Your task to perform on an android device: Go to network settings Image 0: 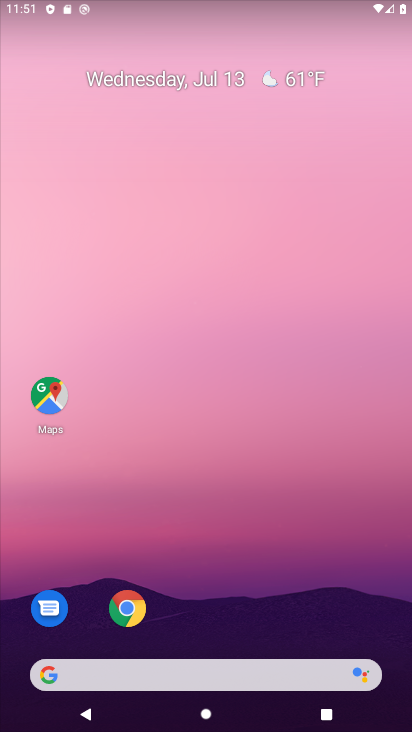
Step 0: click (160, 218)
Your task to perform on an android device: Go to network settings Image 1: 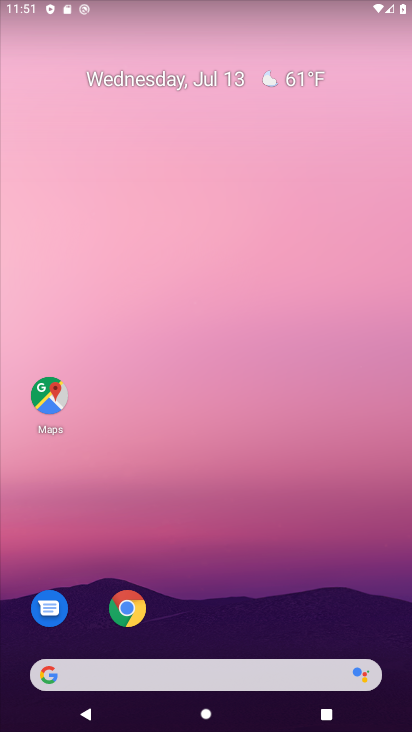
Step 1: click (190, 337)
Your task to perform on an android device: Go to network settings Image 2: 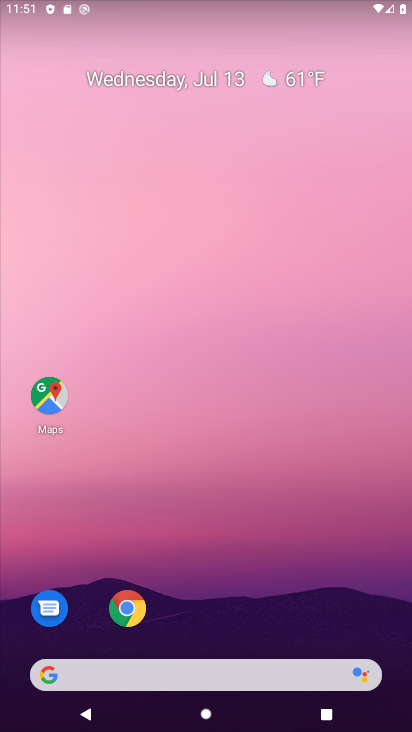
Step 2: click (239, 200)
Your task to perform on an android device: Go to network settings Image 3: 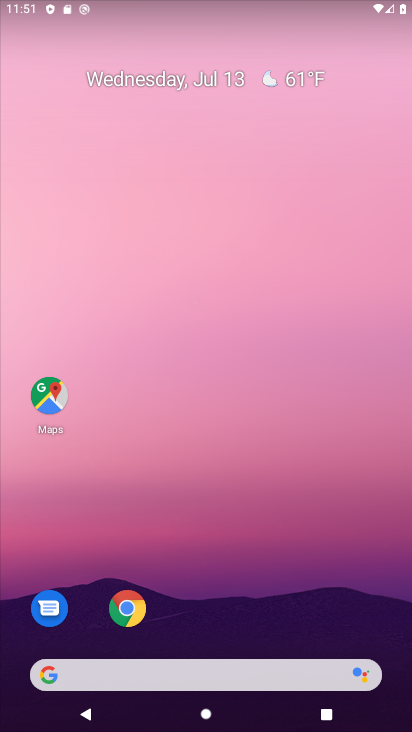
Step 3: drag from (216, 545) to (219, 18)
Your task to perform on an android device: Go to network settings Image 4: 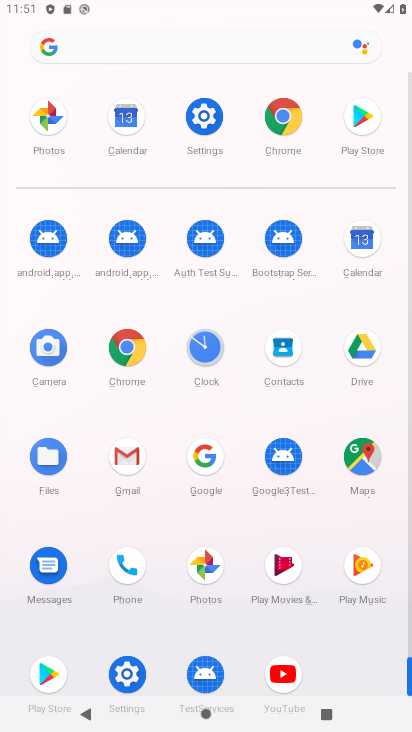
Step 4: click (199, 115)
Your task to perform on an android device: Go to network settings Image 5: 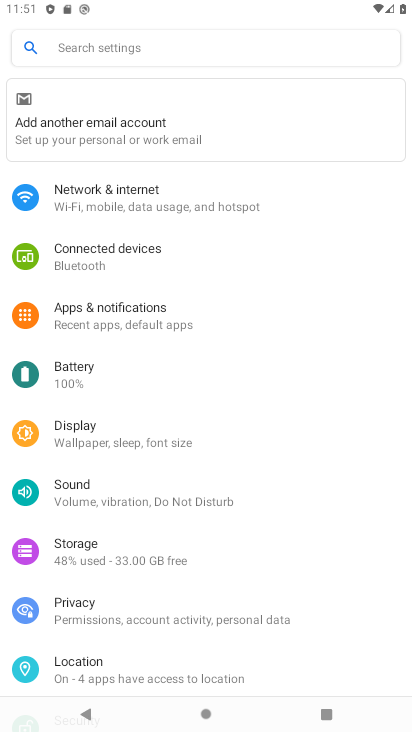
Step 5: click (146, 199)
Your task to perform on an android device: Go to network settings Image 6: 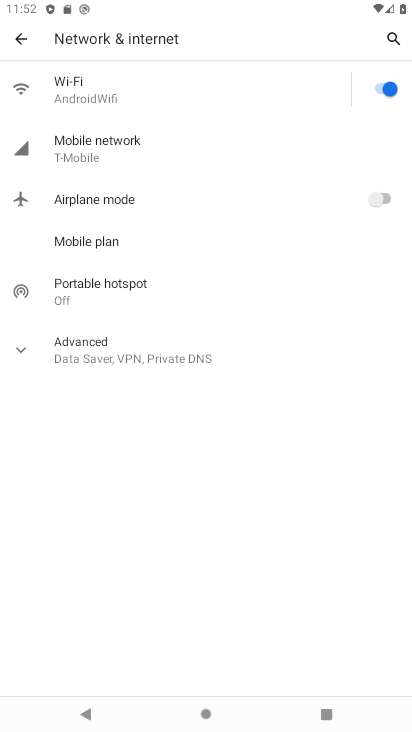
Step 6: click (166, 153)
Your task to perform on an android device: Go to network settings Image 7: 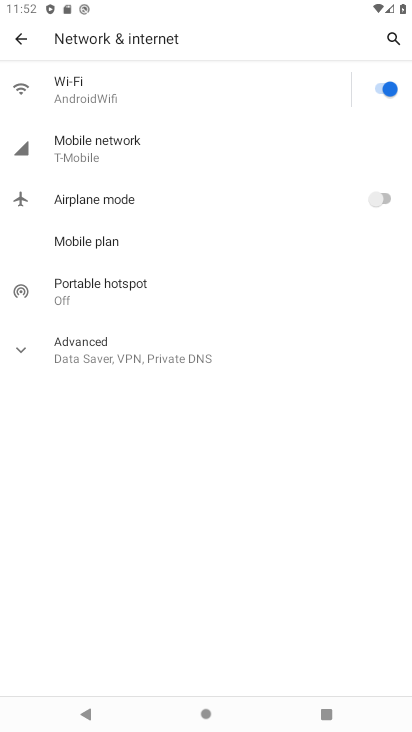
Step 7: click (166, 153)
Your task to perform on an android device: Go to network settings Image 8: 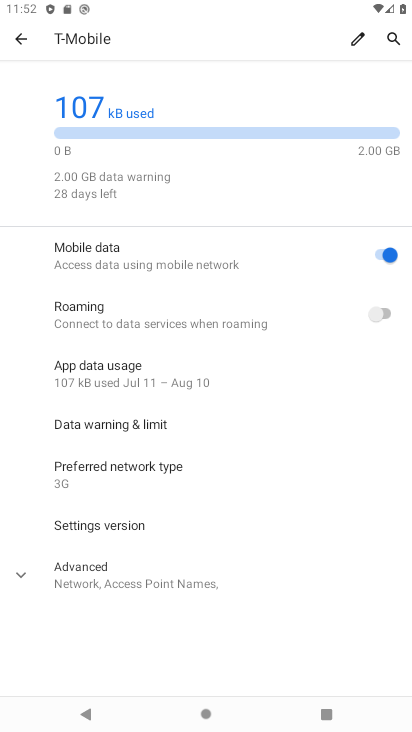
Step 8: task complete